Your task to perform on an android device: Go to notification settings Image 0: 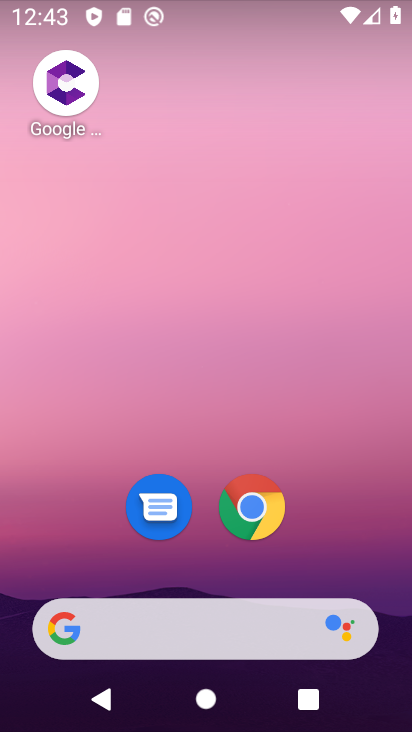
Step 0: drag from (213, 572) to (247, 39)
Your task to perform on an android device: Go to notification settings Image 1: 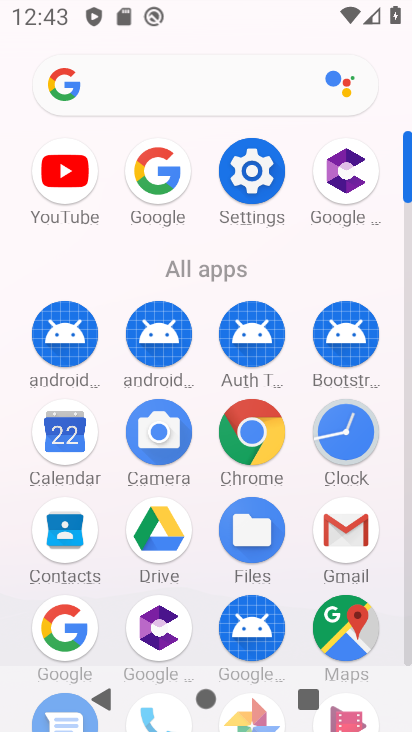
Step 1: click (241, 187)
Your task to perform on an android device: Go to notification settings Image 2: 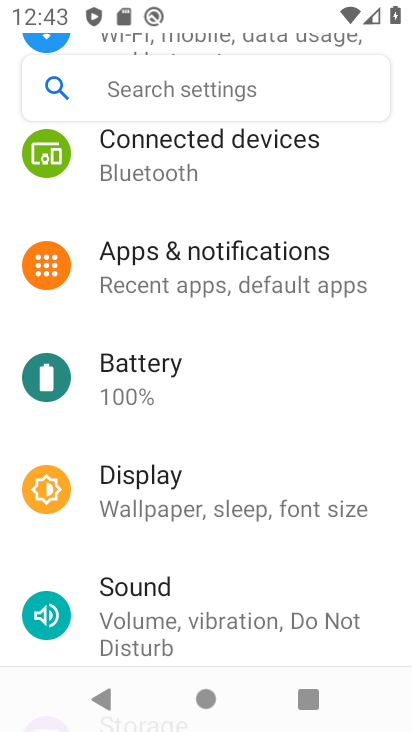
Step 2: click (250, 290)
Your task to perform on an android device: Go to notification settings Image 3: 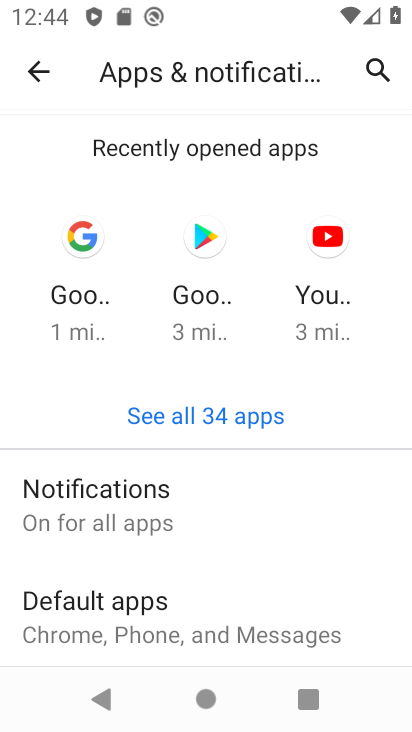
Step 3: click (180, 513)
Your task to perform on an android device: Go to notification settings Image 4: 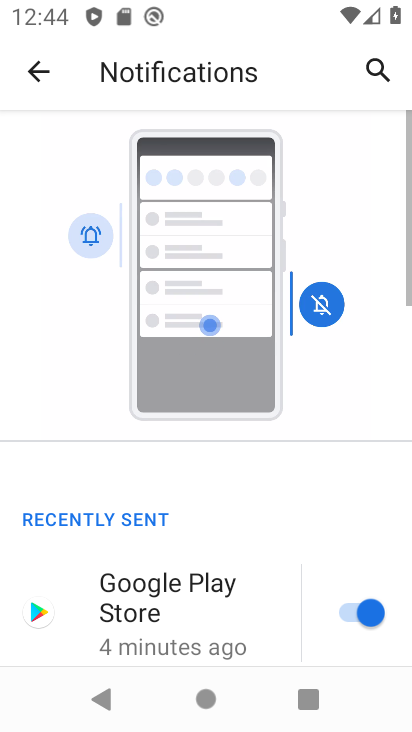
Step 4: task complete